Your task to perform on an android device: Open Amazon Image 0: 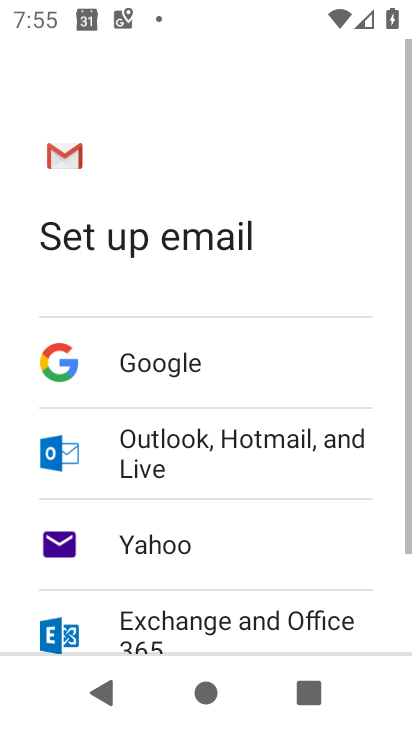
Step 0: press home button
Your task to perform on an android device: Open Amazon Image 1: 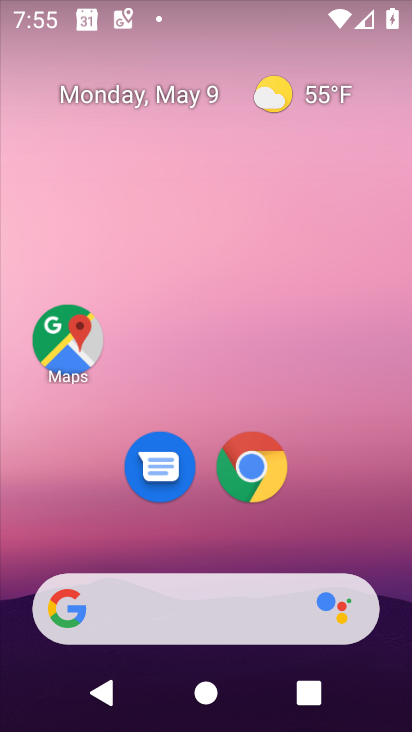
Step 1: click (249, 463)
Your task to perform on an android device: Open Amazon Image 2: 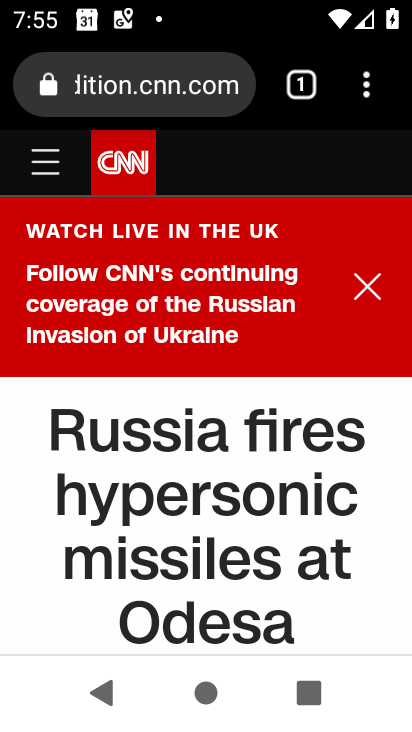
Step 2: click (138, 81)
Your task to perform on an android device: Open Amazon Image 3: 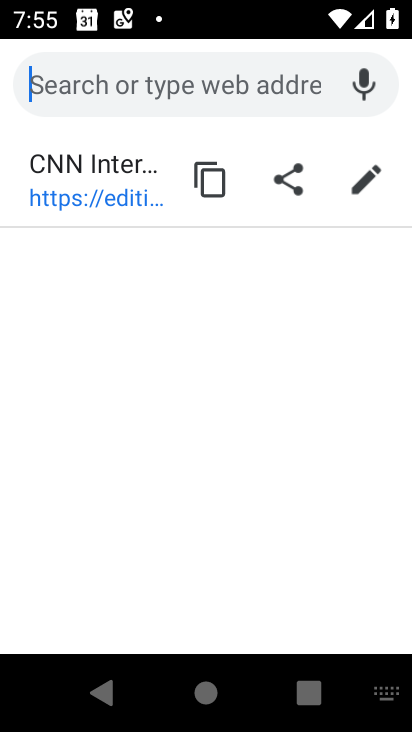
Step 3: type "amazon"
Your task to perform on an android device: Open Amazon Image 4: 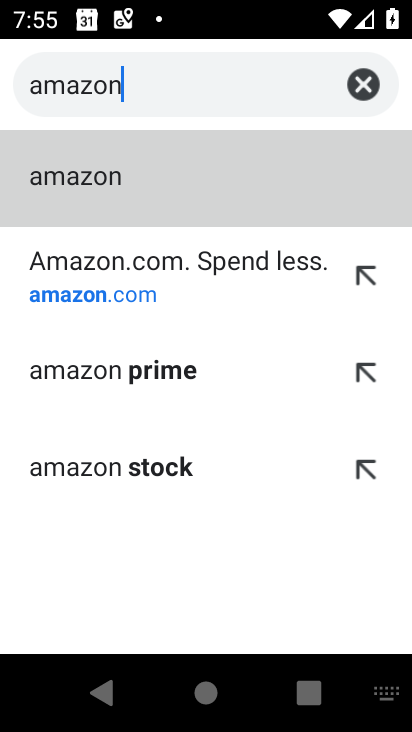
Step 4: click (92, 183)
Your task to perform on an android device: Open Amazon Image 5: 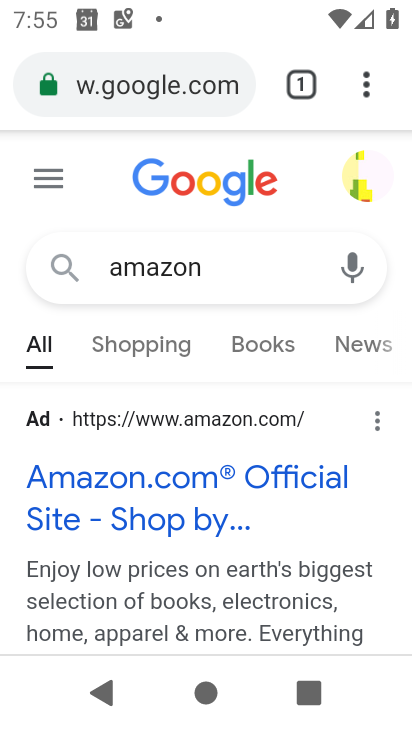
Step 5: click (76, 482)
Your task to perform on an android device: Open Amazon Image 6: 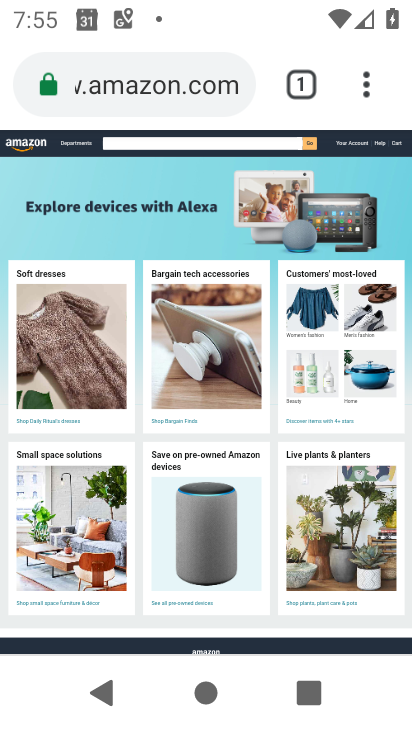
Step 6: task complete